Your task to perform on an android device: Open the calendar app, open the side menu, and click the "Day" option Image 0: 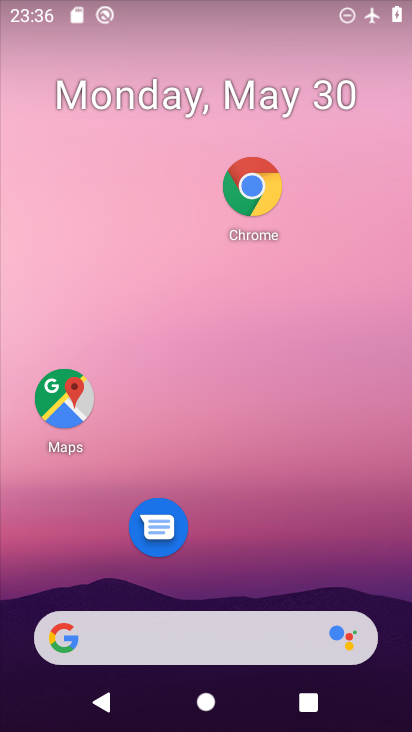
Step 0: drag from (236, 475) to (200, 190)
Your task to perform on an android device: Open the calendar app, open the side menu, and click the "Day" option Image 1: 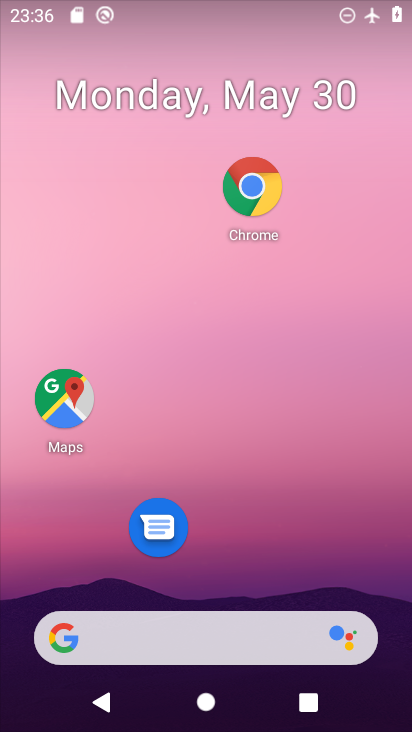
Step 1: drag from (247, 551) to (216, 236)
Your task to perform on an android device: Open the calendar app, open the side menu, and click the "Day" option Image 2: 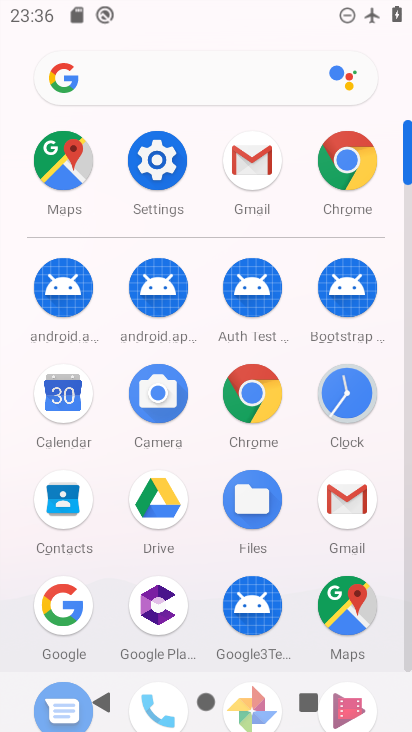
Step 2: click (63, 385)
Your task to perform on an android device: Open the calendar app, open the side menu, and click the "Day" option Image 3: 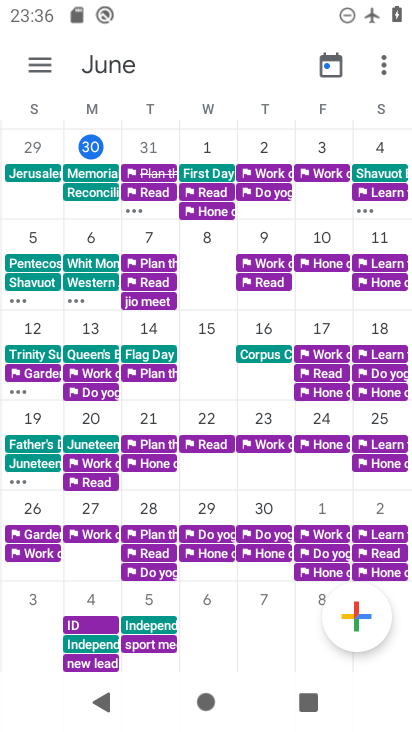
Step 3: click (37, 61)
Your task to perform on an android device: Open the calendar app, open the side menu, and click the "Day" option Image 4: 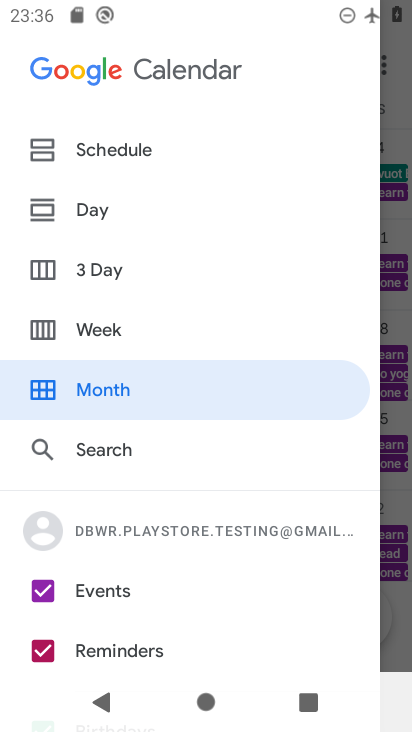
Step 4: click (109, 210)
Your task to perform on an android device: Open the calendar app, open the side menu, and click the "Day" option Image 5: 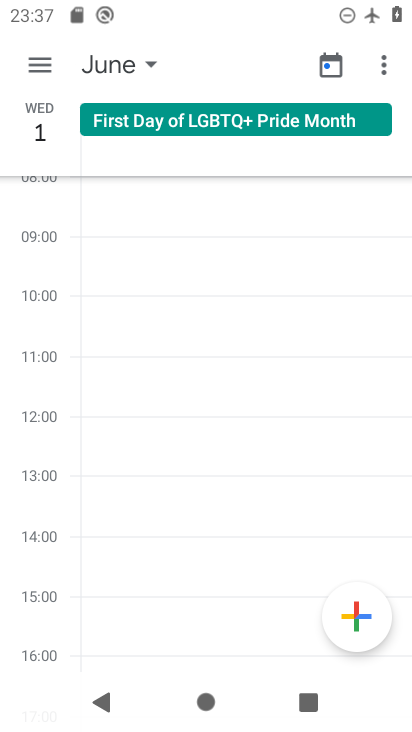
Step 5: click (34, 61)
Your task to perform on an android device: Open the calendar app, open the side menu, and click the "Day" option Image 6: 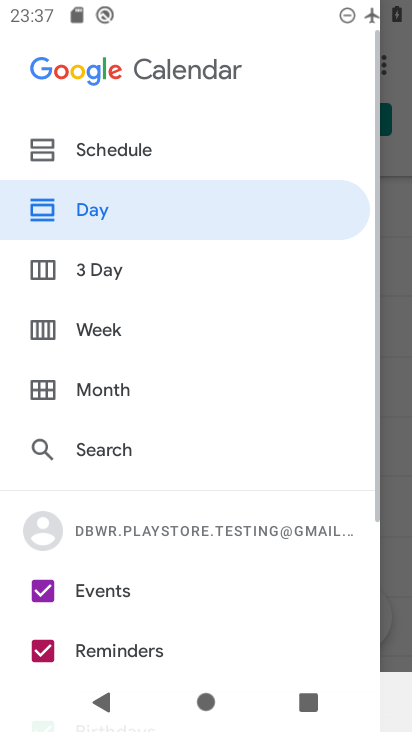
Step 6: click (92, 213)
Your task to perform on an android device: Open the calendar app, open the side menu, and click the "Day" option Image 7: 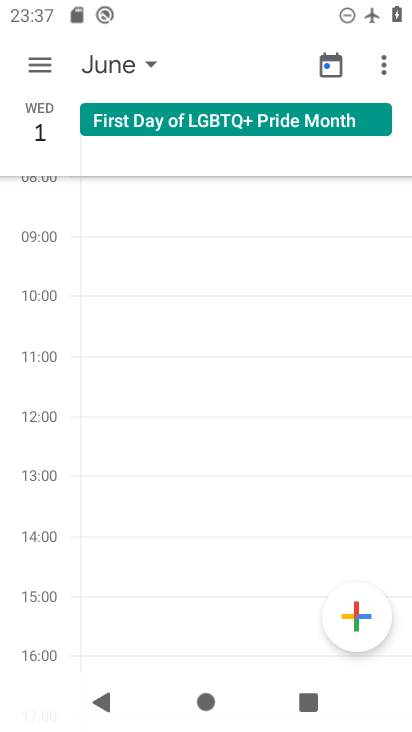
Step 7: task complete